Your task to perform on an android device: Open the phone app and click the voicemail tab. Image 0: 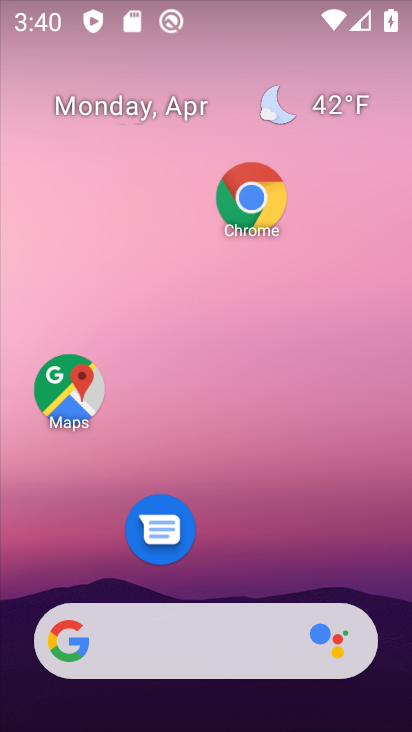
Step 0: drag from (223, 486) to (208, 301)
Your task to perform on an android device: Open the phone app and click the voicemail tab. Image 1: 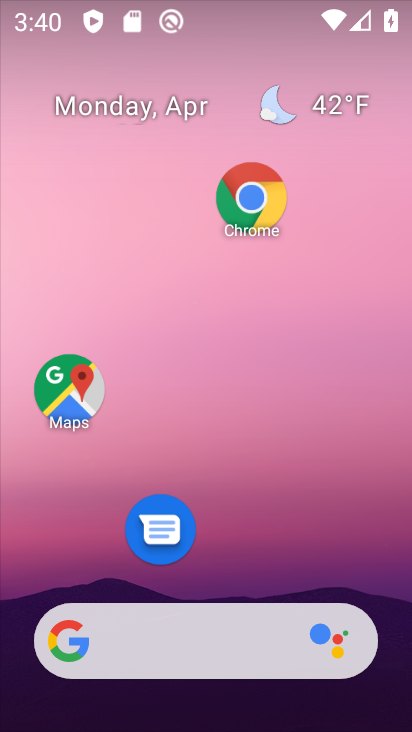
Step 1: drag from (218, 573) to (190, 132)
Your task to perform on an android device: Open the phone app and click the voicemail tab. Image 2: 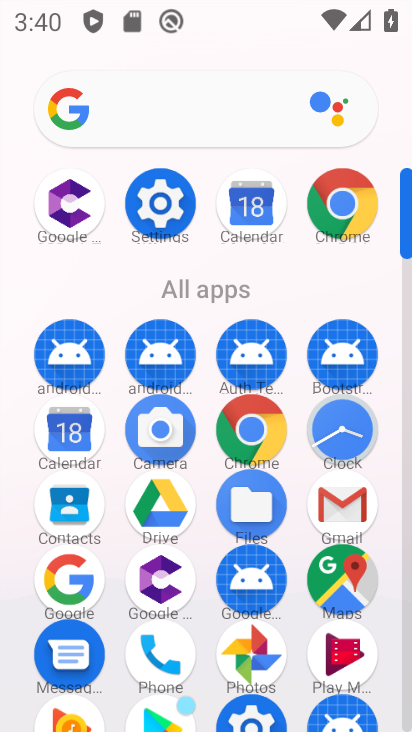
Step 2: click (175, 634)
Your task to perform on an android device: Open the phone app and click the voicemail tab. Image 3: 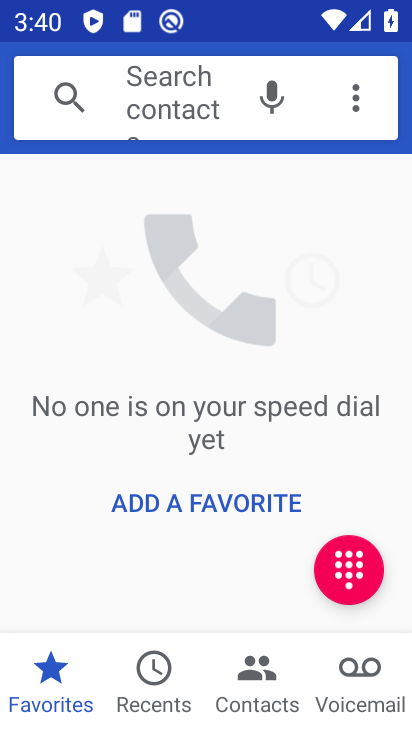
Step 3: click (352, 680)
Your task to perform on an android device: Open the phone app and click the voicemail tab. Image 4: 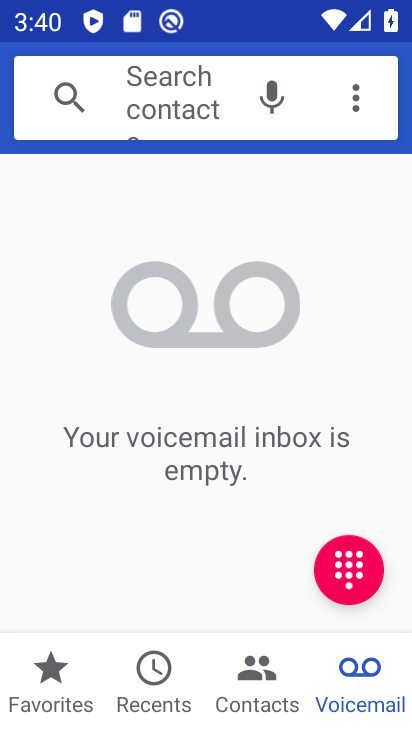
Step 4: task complete